Your task to perform on an android device: Go to sound settings Image 0: 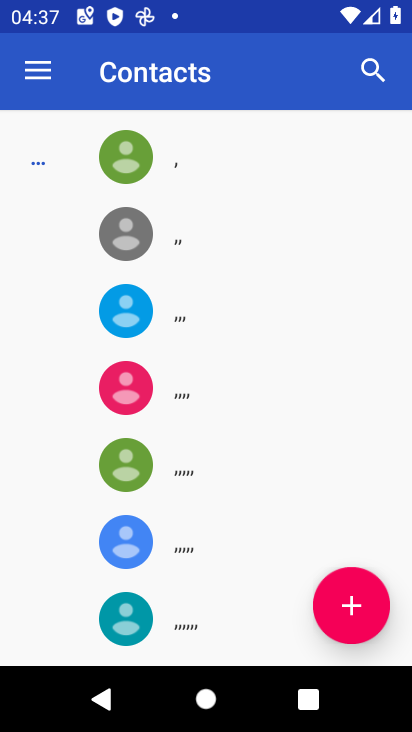
Step 0: press home button
Your task to perform on an android device: Go to sound settings Image 1: 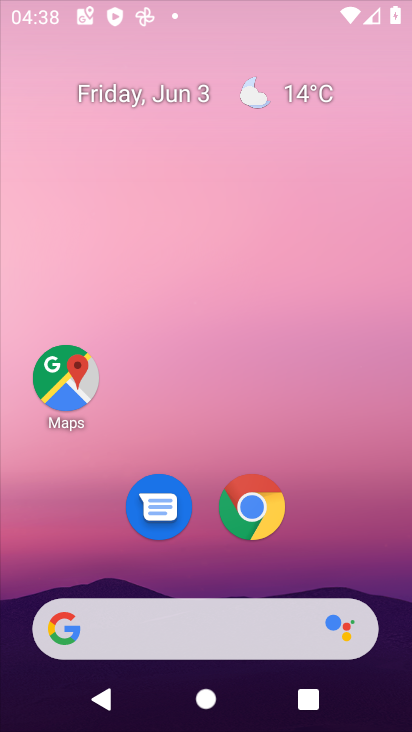
Step 1: drag from (355, 504) to (309, 70)
Your task to perform on an android device: Go to sound settings Image 2: 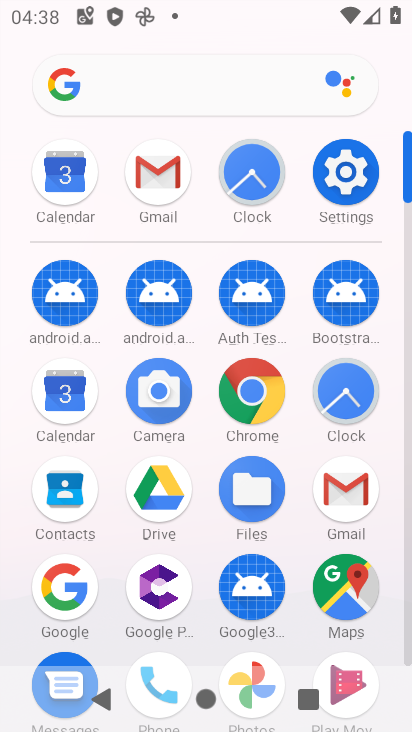
Step 2: click (349, 190)
Your task to perform on an android device: Go to sound settings Image 3: 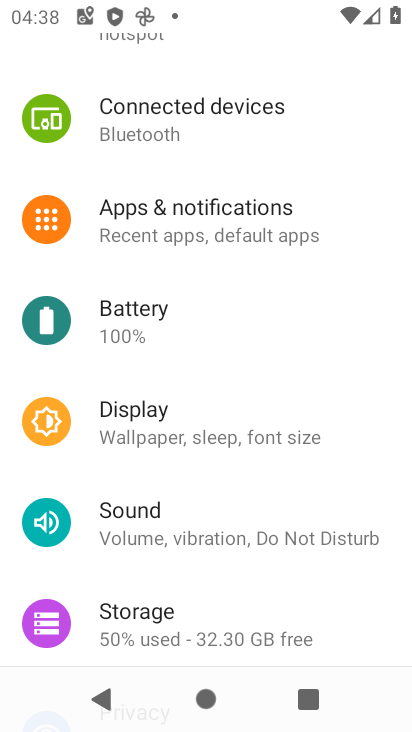
Step 3: click (199, 525)
Your task to perform on an android device: Go to sound settings Image 4: 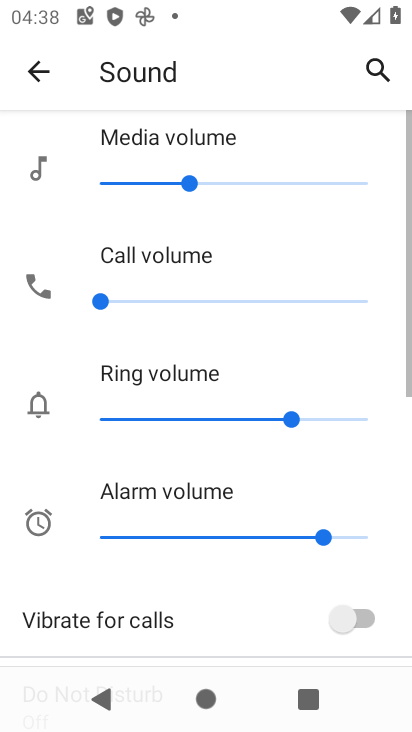
Step 4: task complete